Your task to perform on an android device: Open ESPN.com Image 0: 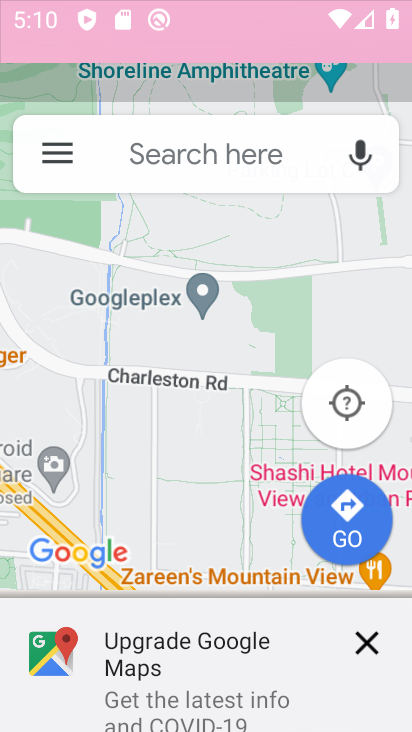
Step 0: click (263, 532)
Your task to perform on an android device: Open ESPN.com Image 1: 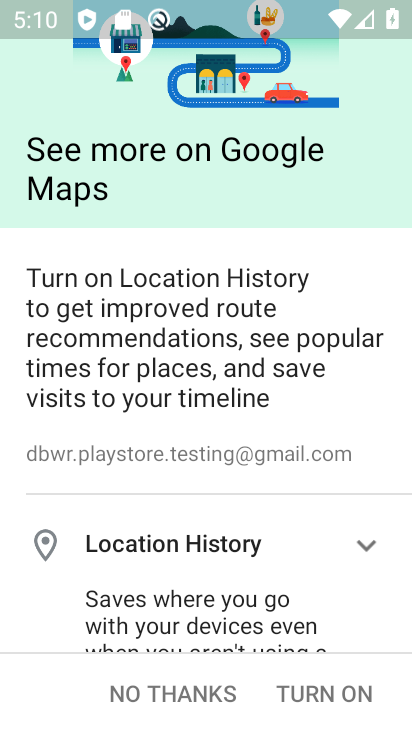
Step 1: press back button
Your task to perform on an android device: Open ESPN.com Image 2: 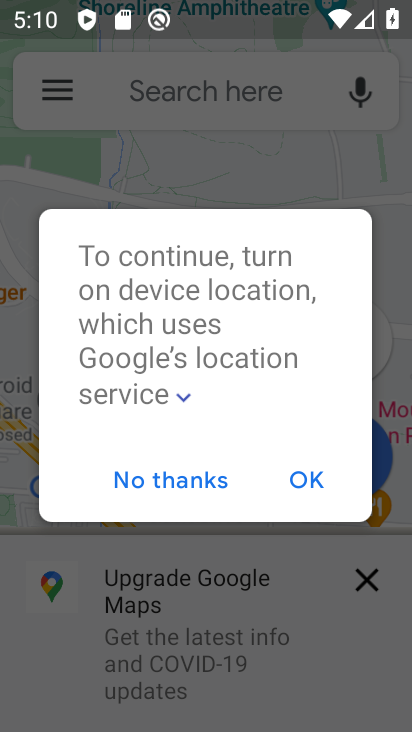
Step 2: press back button
Your task to perform on an android device: Open ESPN.com Image 3: 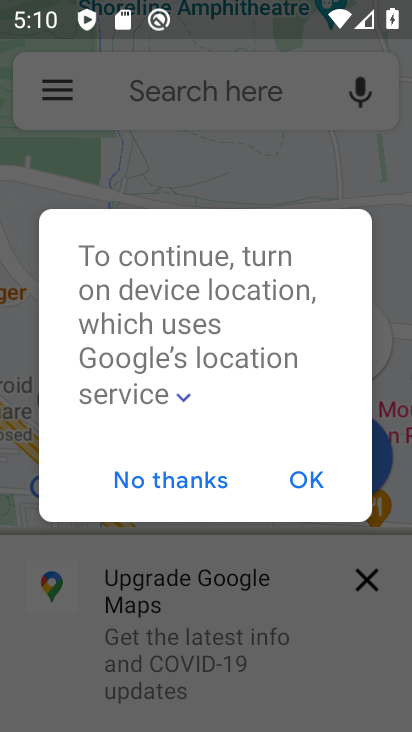
Step 3: press home button
Your task to perform on an android device: Open ESPN.com Image 4: 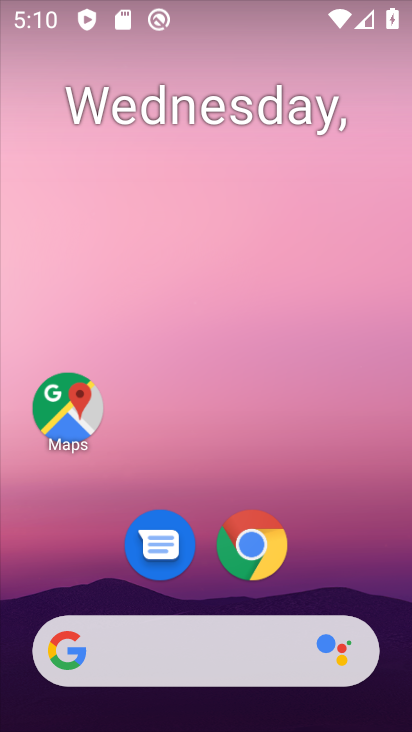
Step 4: click (247, 537)
Your task to perform on an android device: Open ESPN.com Image 5: 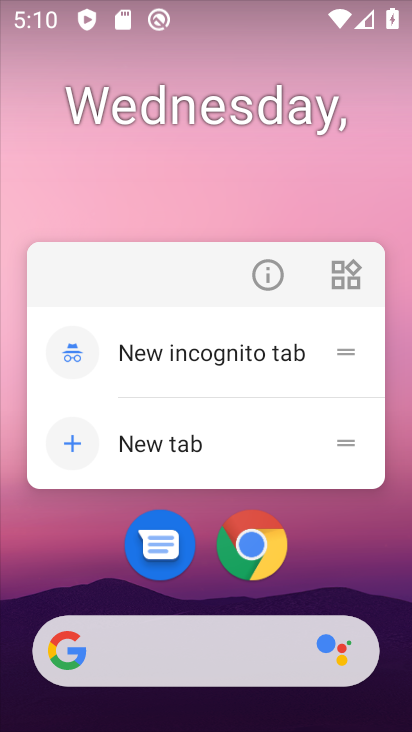
Step 5: drag from (254, 530) to (307, 530)
Your task to perform on an android device: Open ESPN.com Image 6: 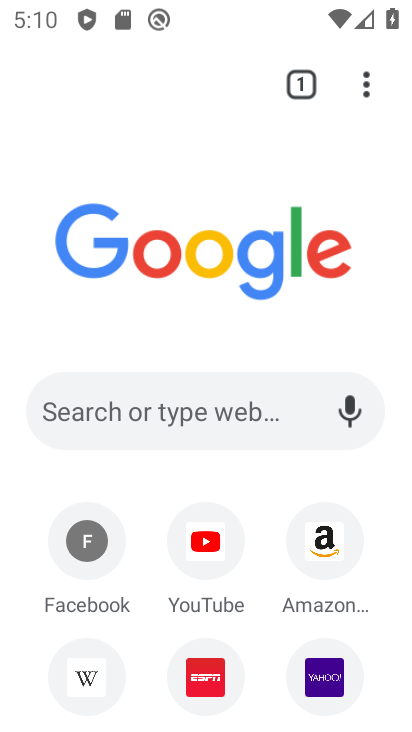
Step 6: click (209, 664)
Your task to perform on an android device: Open ESPN.com Image 7: 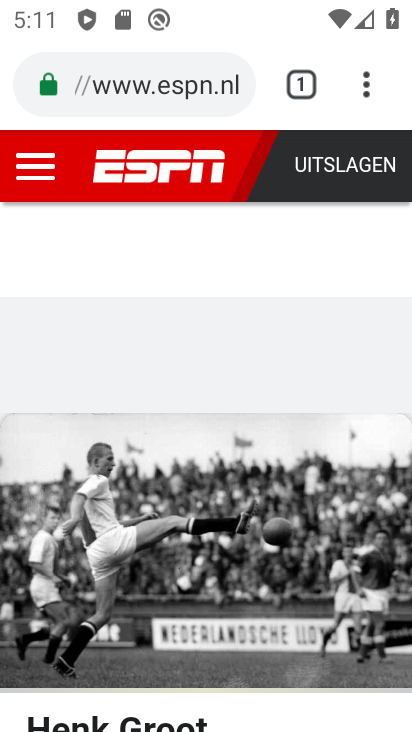
Step 7: task complete